Your task to perform on an android device: open chrome privacy settings Image 0: 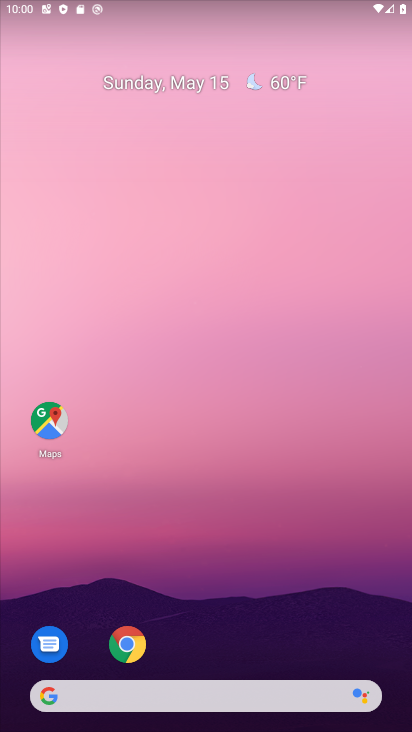
Step 0: click (144, 641)
Your task to perform on an android device: open chrome privacy settings Image 1: 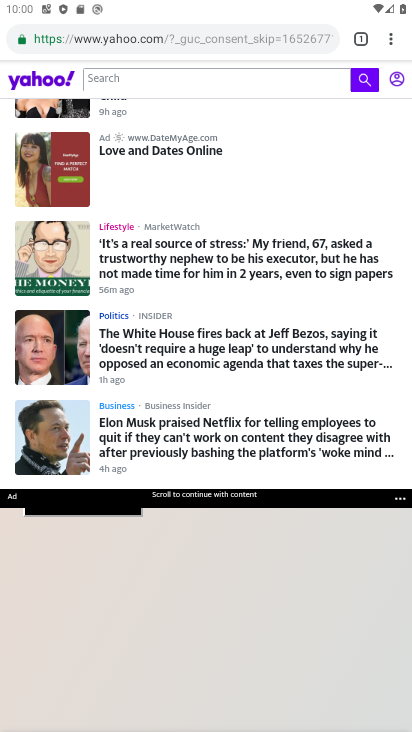
Step 1: click (386, 36)
Your task to perform on an android device: open chrome privacy settings Image 2: 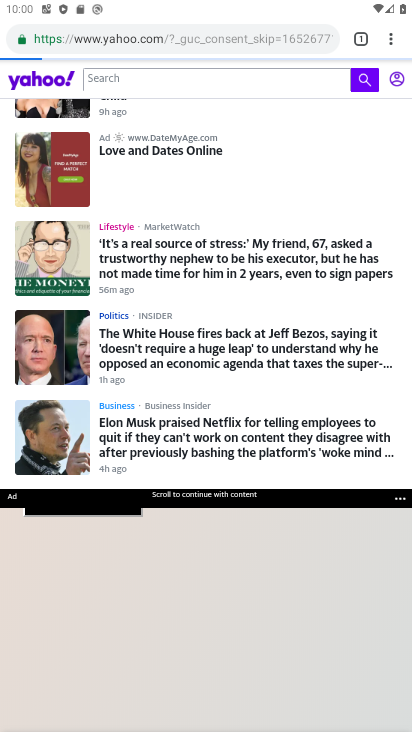
Step 2: click (390, 40)
Your task to perform on an android device: open chrome privacy settings Image 3: 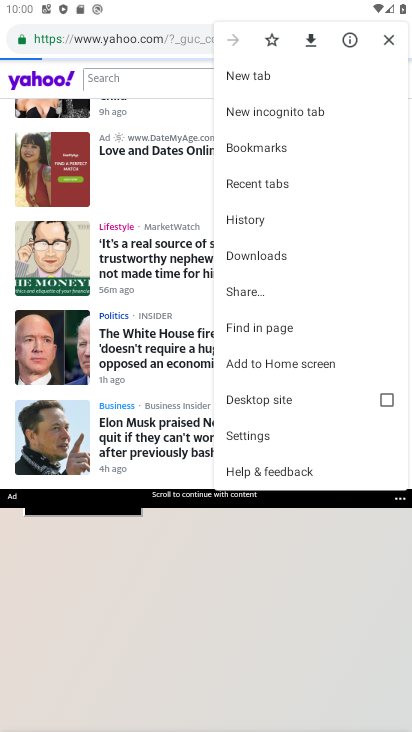
Step 3: click (257, 435)
Your task to perform on an android device: open chrome privacy settings Image 4: 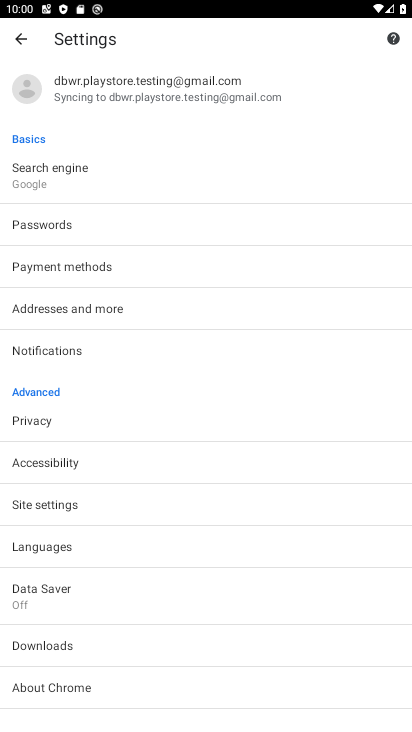
Step 4: drag from (95, 661) to (125, 293)
Your task to perform on an android device: open chrome privacy settings Image 5: 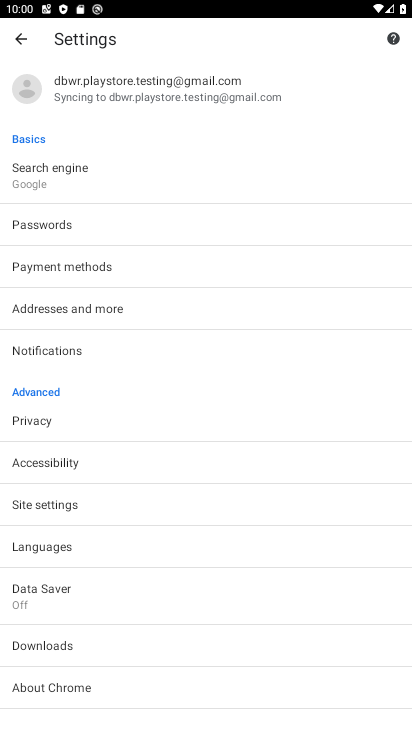
Step 5: click (46, 433)
Your task to perform on an android device: open chrome privacy settings Image 6: 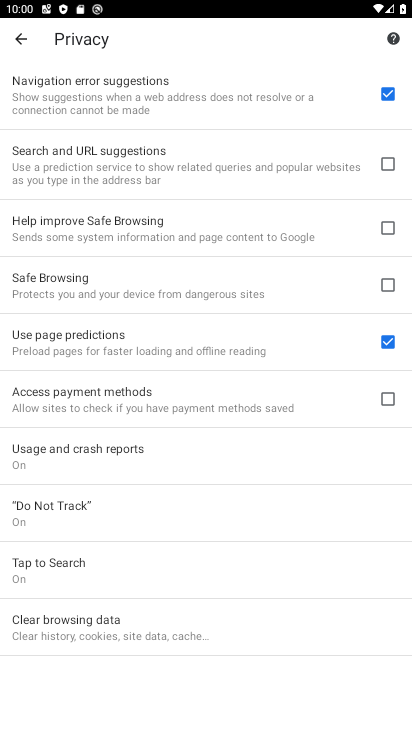
Step 6: task complete